Your task to perform on an android device: add a label to a message in the gmail app Image 0: 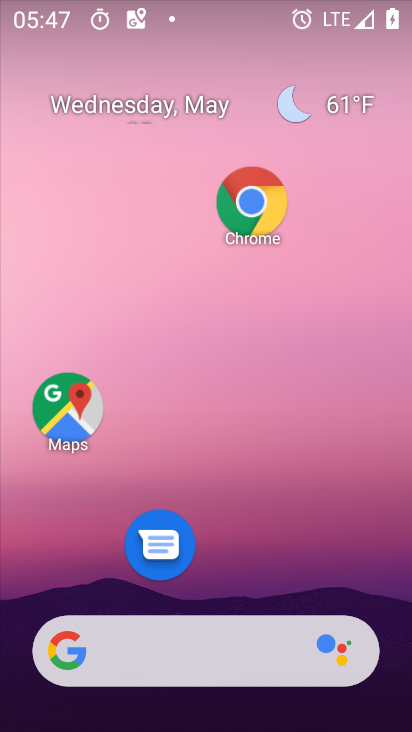
Step 0: drag from (299, 620) to (324, 165)
Your task to perform on an android device: add a label to a message in the gmail app Image 1: 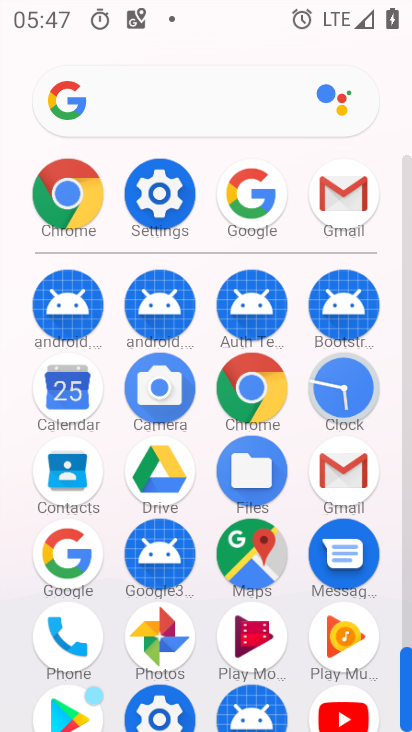
Step 1: click (361, 192)
Your task to perform on an android device: add a label to a message in the gmail app Image 2: 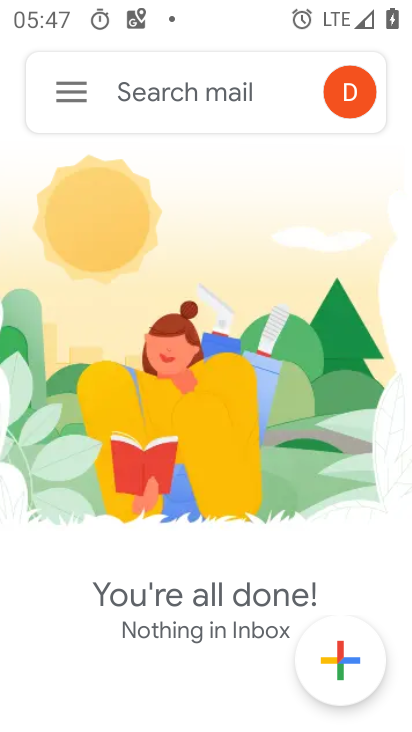
Step 2: task complete